Your task to perform on an android device: Find coffee shops on Maps Image 0: 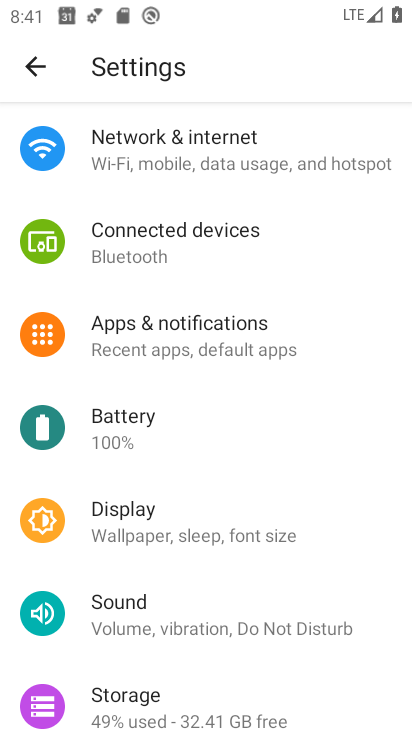
Step 0: press home button
Your task to perform on an android device: Find coffee shops on Maps Image 1: 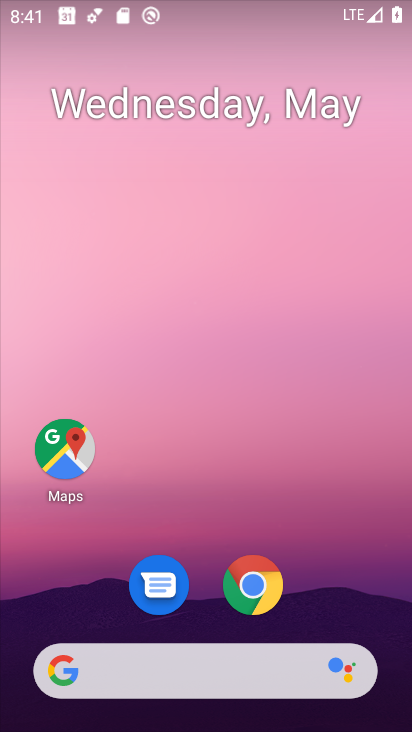
Step 1: click (66, 452)
Your task to perform on an android device: Find coffee shops on Maps Image 2: 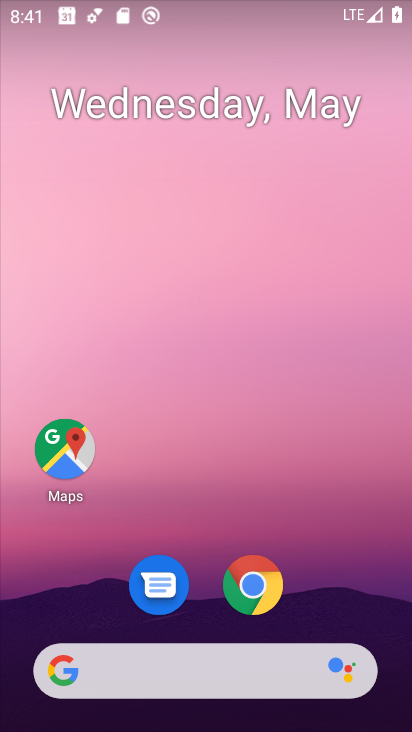
Step 2: click (66, 452)
Your task to perform on an android device: Find coffee shops on Maps Image 3: 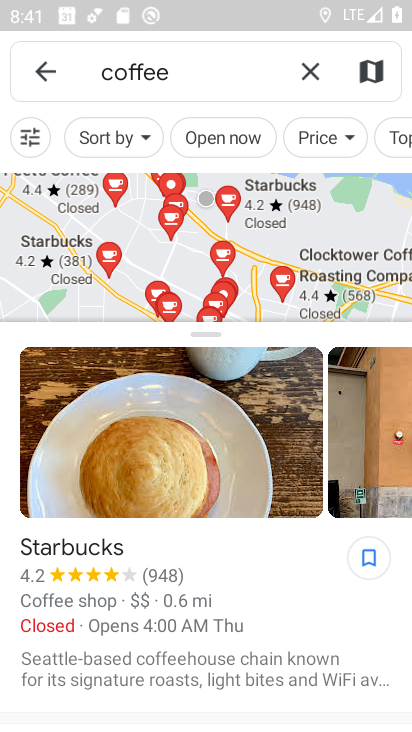
Step 3: task complete